Your task to perform on an android device: install app "Facebook Lite" Image 0: 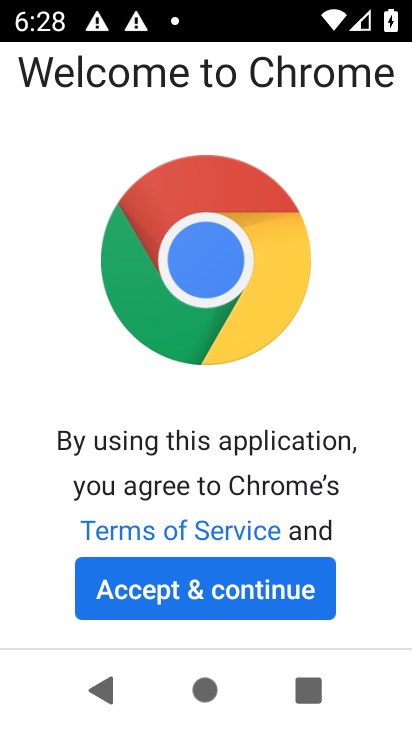
Step 0: press home button
Your task to perform on an android device: install app "Facebook Lite" Image 1: 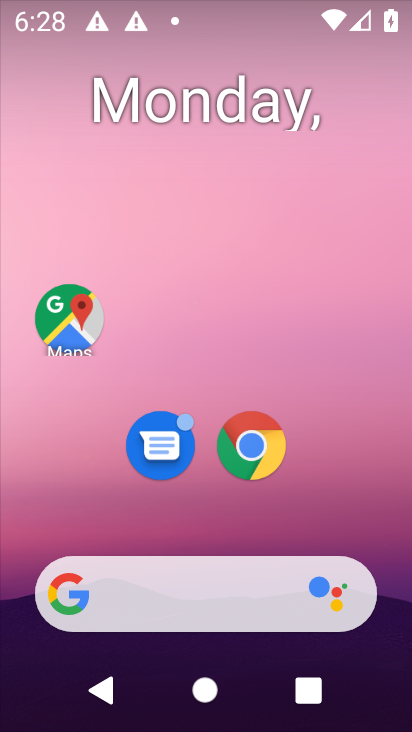
Step 1: drag from (364, 516) to (261, 47)
Your task to perform on an android device: install app "Facebook Lite" Image 2: 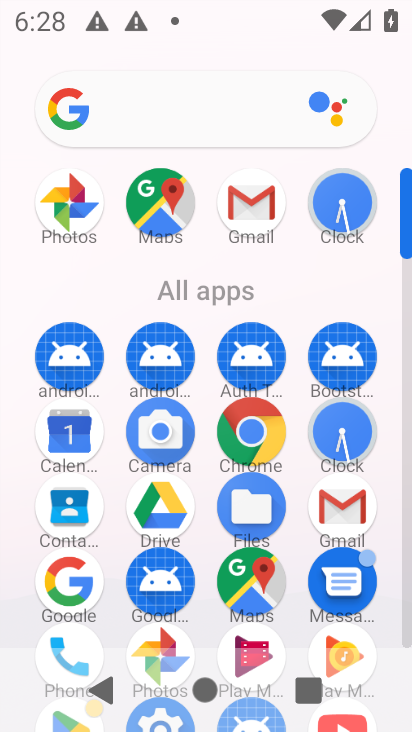
Step 2: drag from (203, 603) to (195, 106)
Your task to perform on an android device: install app "Facebook Lite" Image 3: 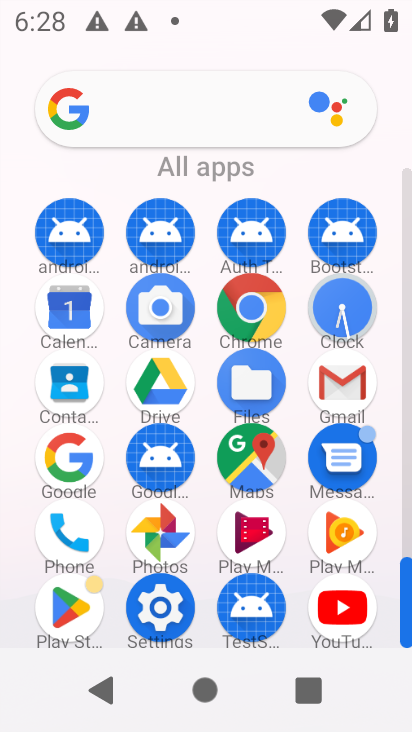
Step 3: click (74, 598)
Your task to perform on an android device: install app "Facebook Lite" Image 4: 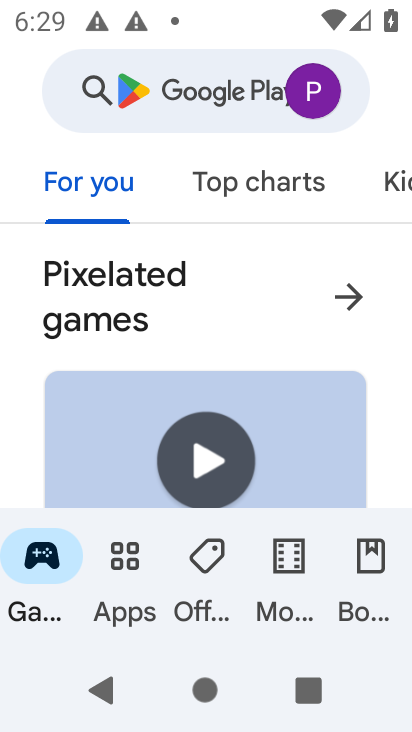
Step 4: click (205, 94)
Your task to perform on an android device: install app "Facebook Lite" Image 5: 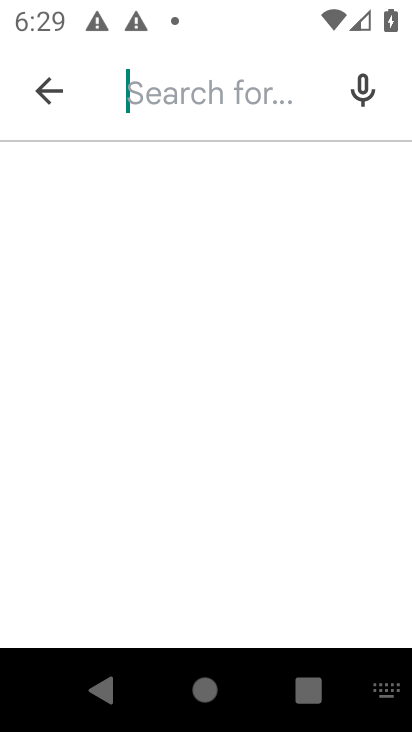
Step 5: type "Facebook Lite"
Your task to perform on an android device: install app "Facebook Lite" Image 6: 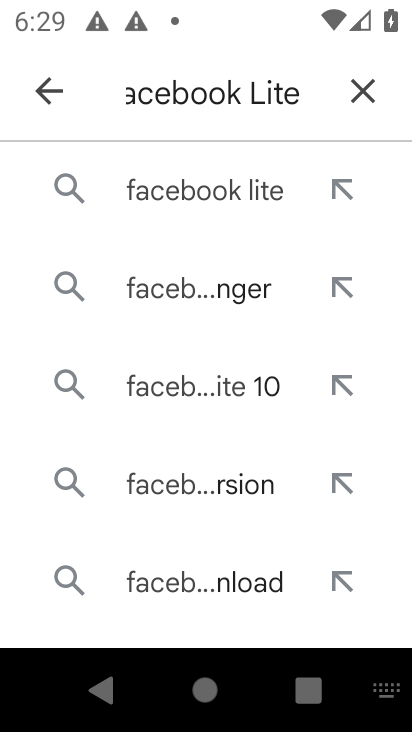
Step 6: click (198, 196)
Your task to perform on an android device: install app "Facebook Lite" Image 7: 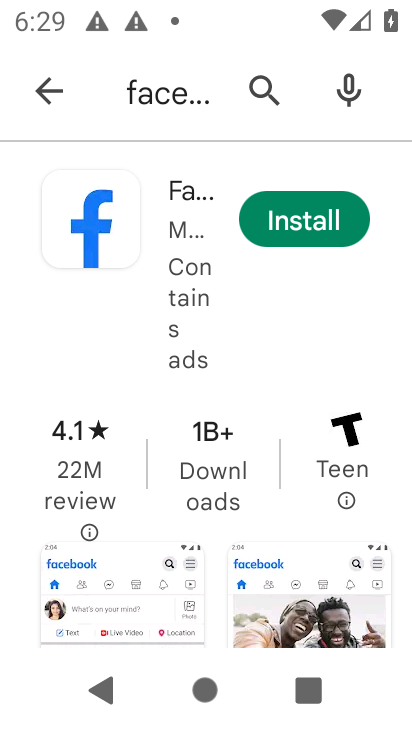
Step 7: click (282, 209)
Your task to perform on an android device: install app "Facebook Lite" Image 8: 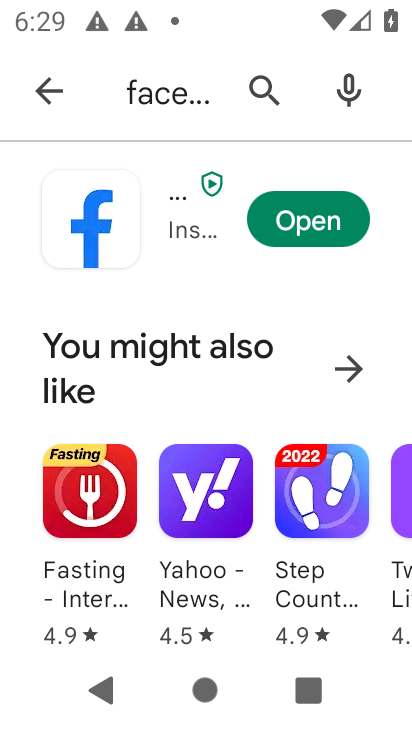
Step 8: task complete